Your task to perform on an android device: Open calendar and show me the second week of next month Image 0: 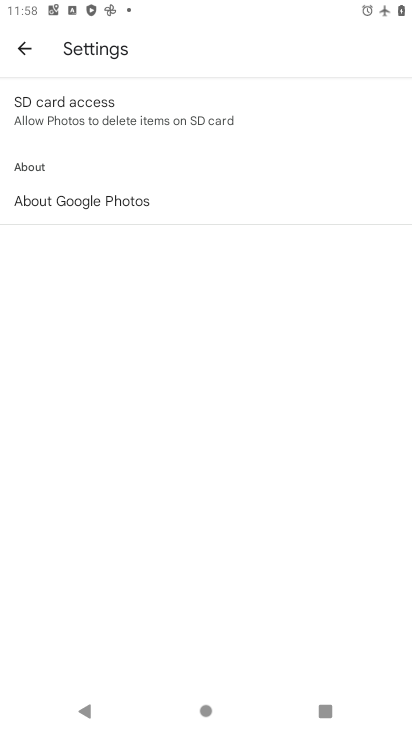
Step 0: press home button
Your task to perform on an android device: Open calendar and show me the second week of next month Image 1: 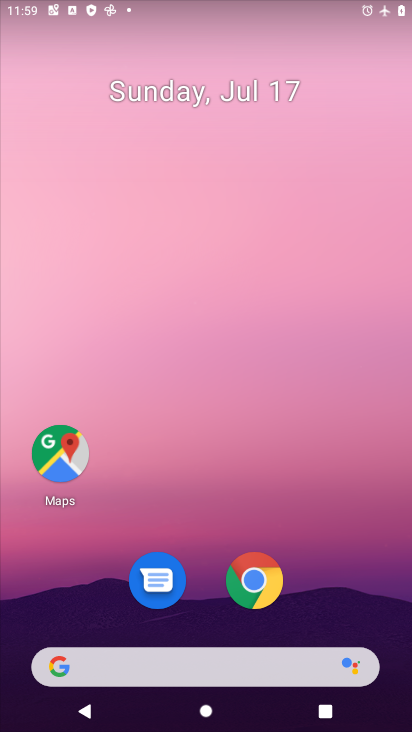
Step 1: drag from (167, 618) to (306, 150)
Your task to perform on an android device: Open calendar and show me the second week of next month Image 2: 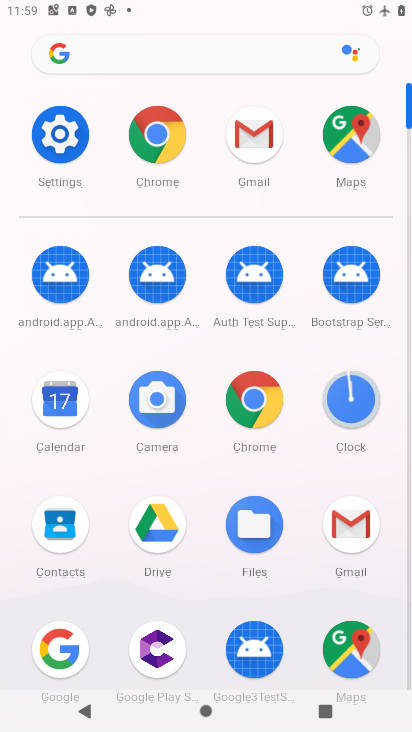
Step 2: click (64, 400)
Your task to perform on an android device: Open calendar and show me the second week of next month Image 3: 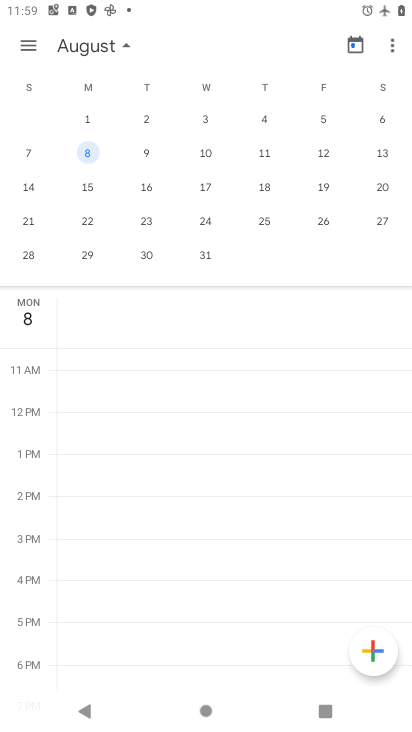
Step 3: task complete